Your task to perform on an android device: Open notification settings Image 0: 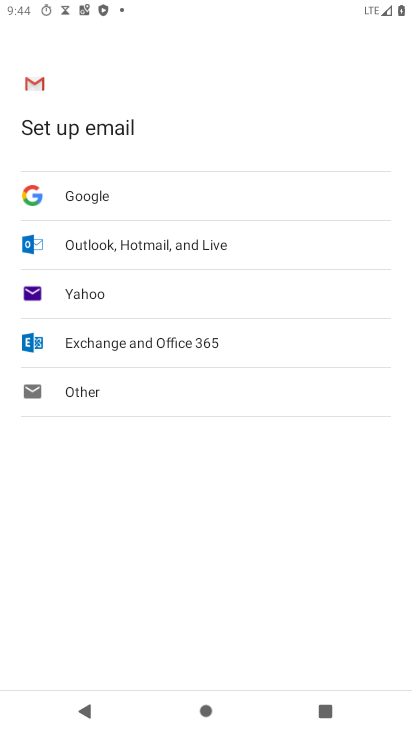
Step 0: press back button
Your task to perform on an android device: Open notification settings Image 1: 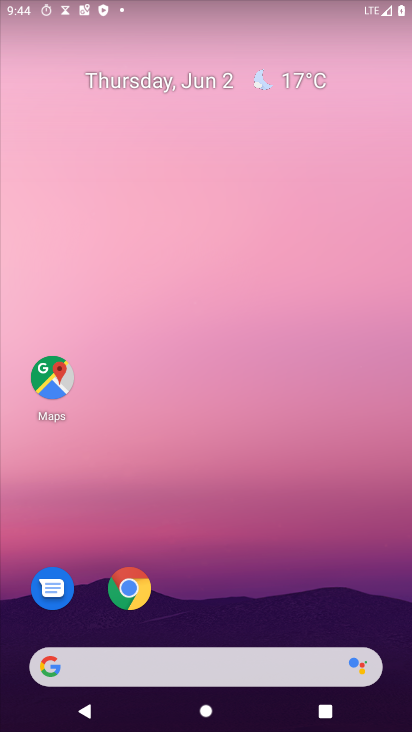
Step 1: drag from (322, 618) to (283, 129)
Your task to perform on an android device: Open notification settings Image 2: 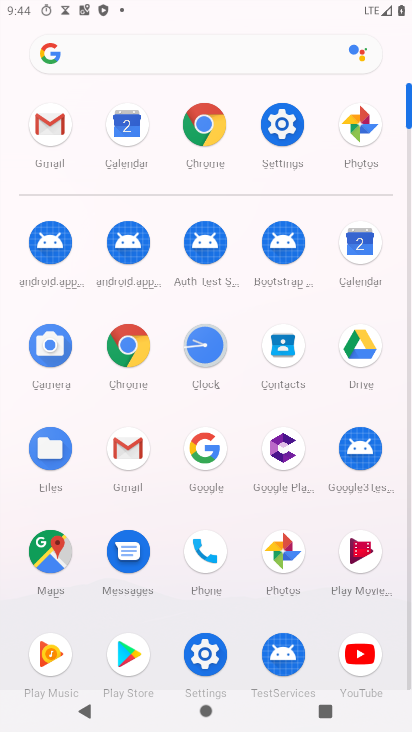
Step 2: click (276, 127)
Your task to perform on an android device: Open notification settings Image 3: 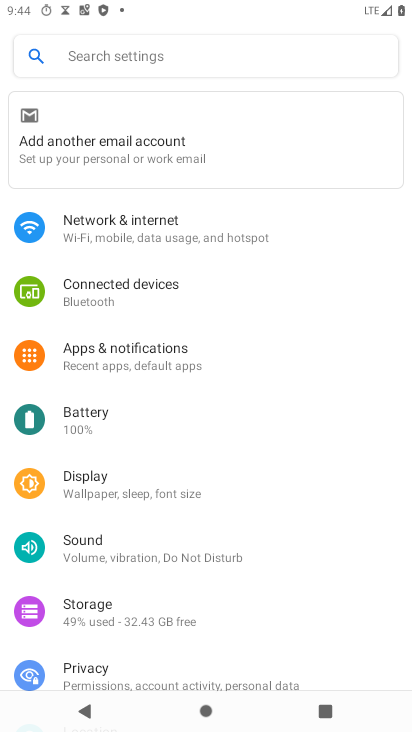
Step 3: click (136, 361)
Your task to perform on an android device: Open notification settings Image 4: 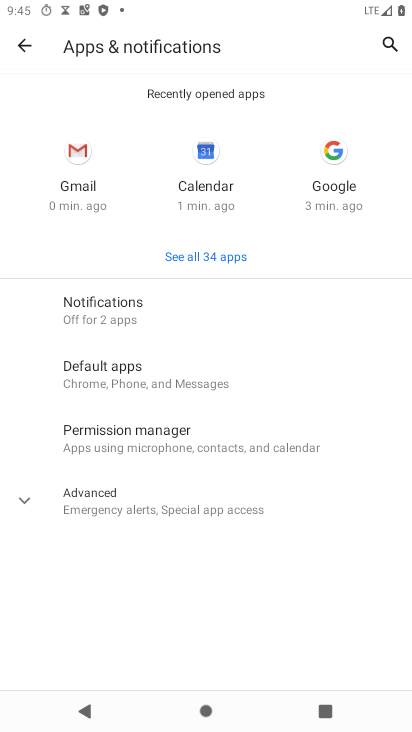
Step 4: task complete